Your task to perform on an android device: delete a single message in the gmail app Image 0: 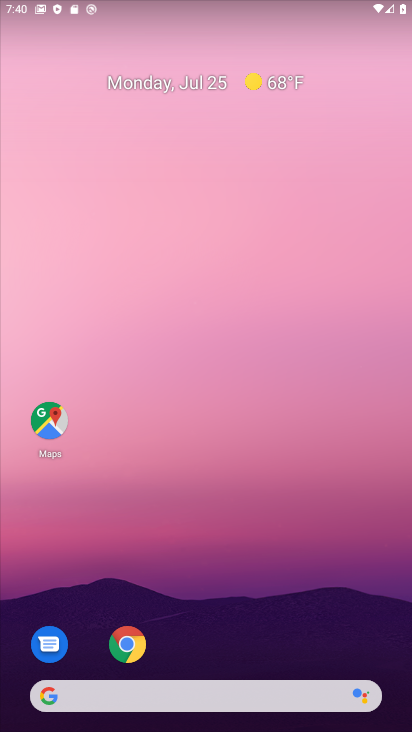
Step 0: click (174, 77)
Your task to perform on an android device: delete a single message in the gmail app Image 1: 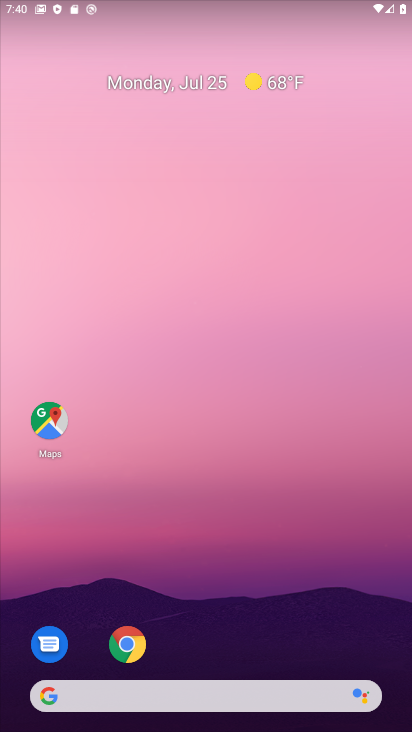
Step 1: drag from (218, 317) to (183, 27)
Your task to perform on an android device: delete a single message in the gmail app Image 2: 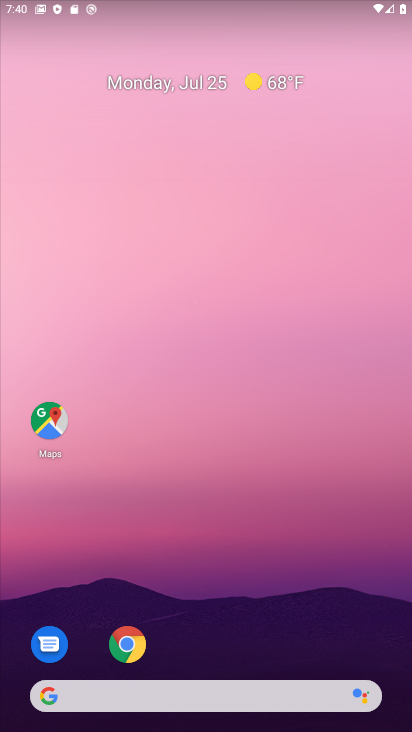
Step 2: click (170, 90)
Your task to perform on an android device: delete a single message in the gmail app Image 3: 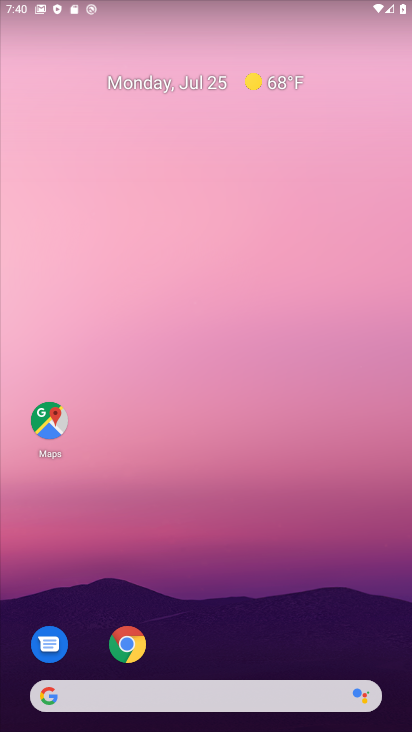
Step 3: drag from (172, 526) to (222, 243)
Your task to perform on an android device: delete a single message in the gmail app Image 4: 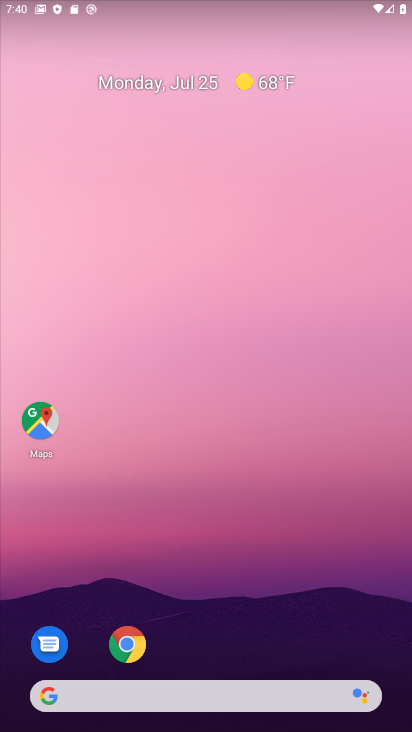
Step 4: drag from (259, 563) to (253, 196)
Your task to perform on an android device: delete a single message in the gmail app Image 5: 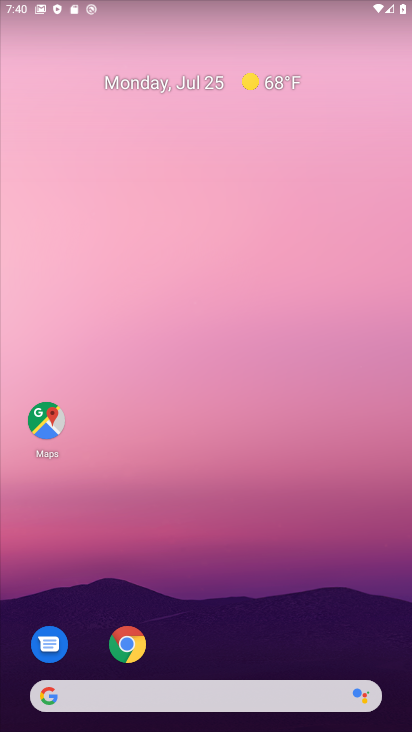
Step 5: drag from (299, 556) to (250, 48)
Your task to perform on an android device: delete a single message in the gmail app Image 6: 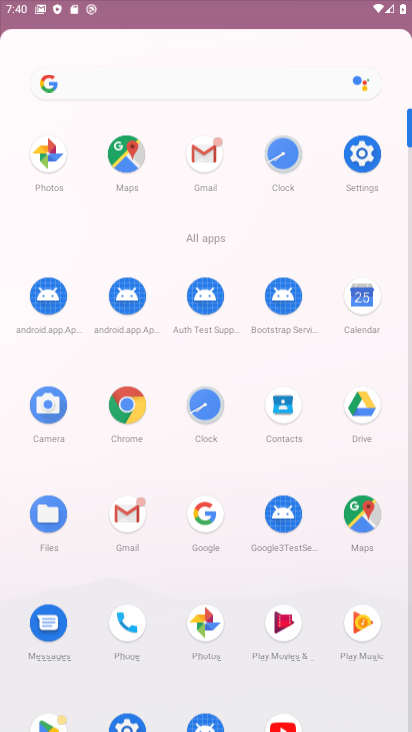
Step 6: drag from (207, 283) to (201, 166)
Your task to perform on an android device: delete a single message in the gmail app Image 7: 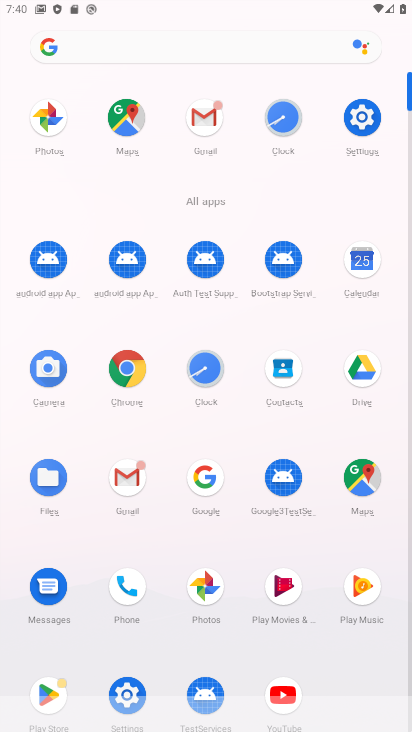
Step 7: click (128, 480)
Your task to perform on an android device: delete a single message in the gmail app Image 8: 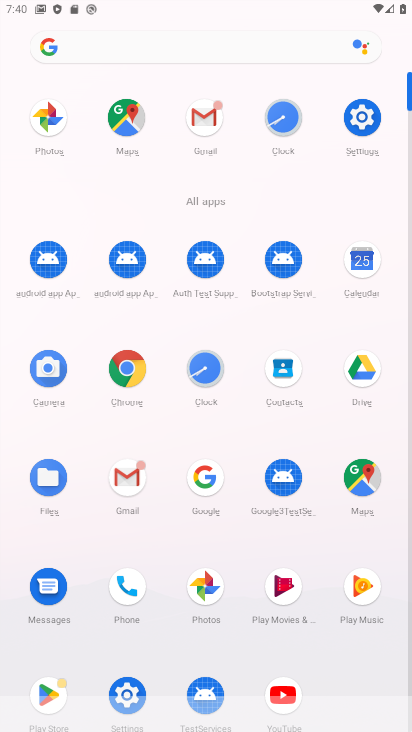
Step 8: click (128, 480)
Your task to perform on an android device: delete a single message in the gmail app Image 9: 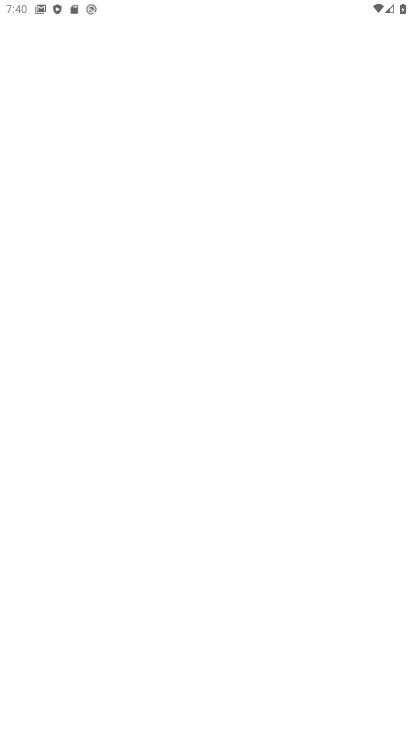
Step 9: click (135, 471)
Your task to perform on an android device: delete a single message in the gmail app Image 10: 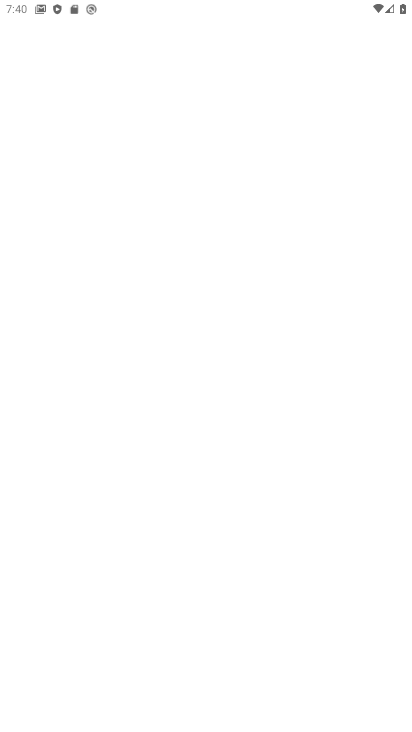
Step 10: click (126, 469)
Your task to perform on an android device: delete a single message in the gmail app Image 11: 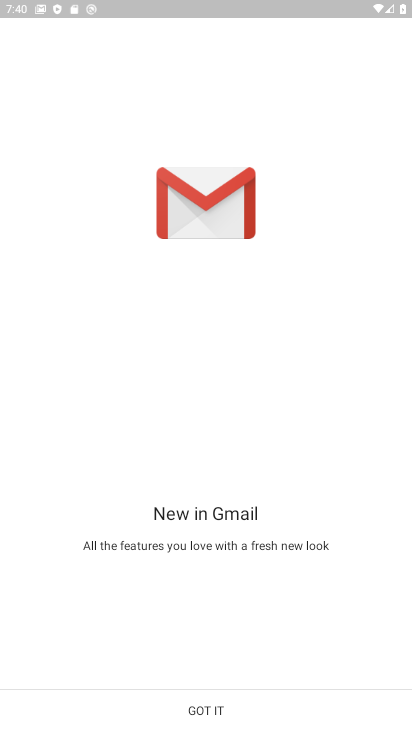
Step 11: click (233, 706)
Your task to perform on an android device: delete a single message in the gmail app Image 12: 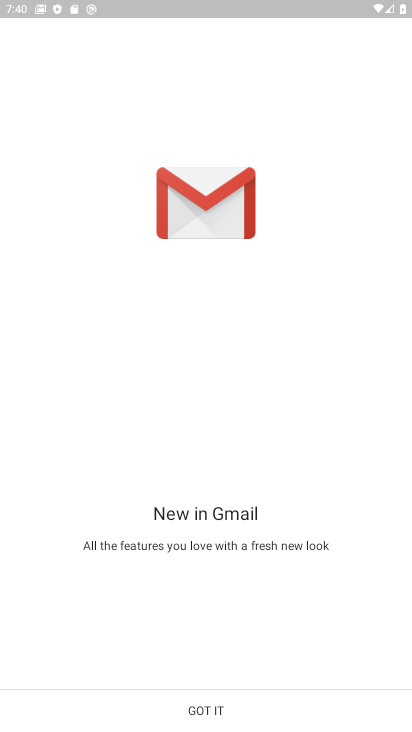
Step 12: click (232, 705)
Your task to perform on an android device: delete a single message in the gmail app Image 13: 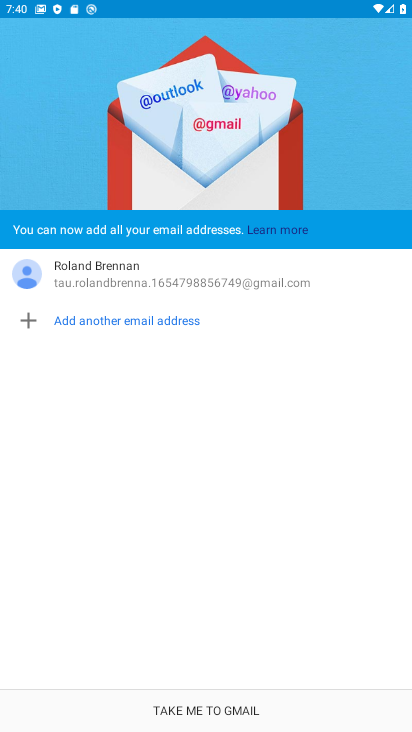
Step 13: click (232, 705)
Your task to perform on an android device: delete a single message in the gmail app Image 14: 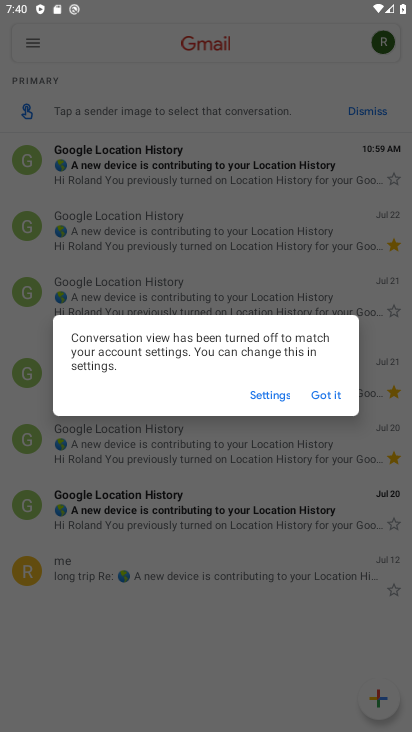
Step 14: click (330, 397)
Your task to perform on an android device: delete a single message in the gmail app Image 15: 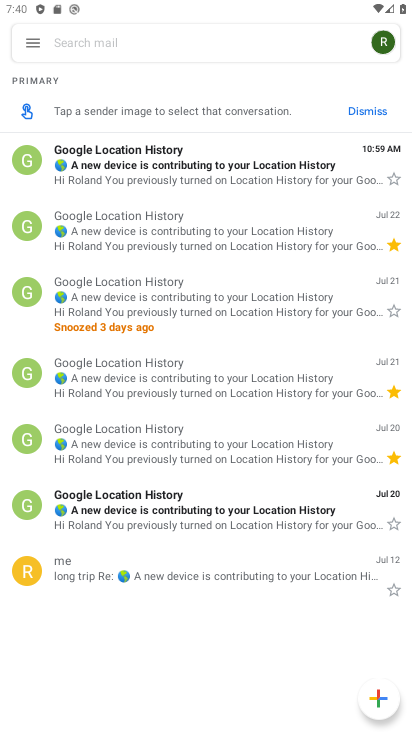
Step 15: click (223, 175)
Your task to perform on an android device: delete a single message in the gmail app Image 16: 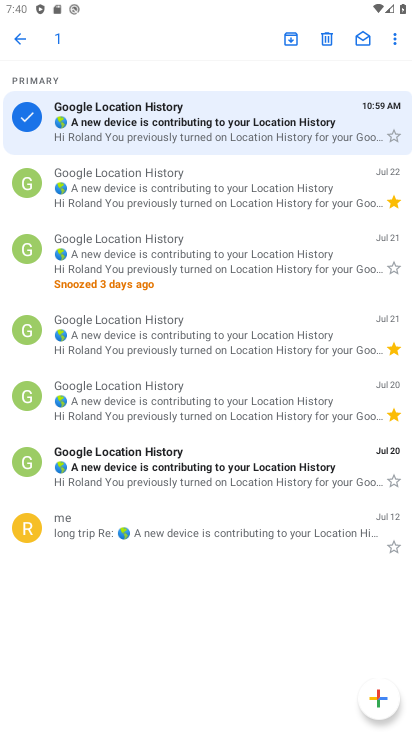
Step 16: click (327, 37)
Your task to perform on an android device: delete a single message in the gmail app Image 17: 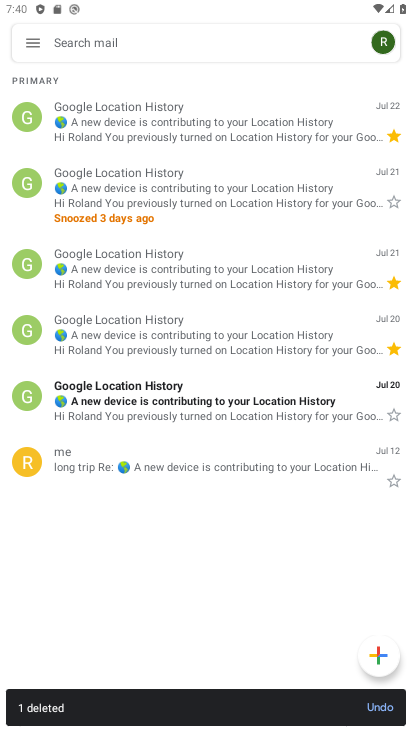
Step 17: task complete